Your task to perform on an android device: Open Android settings Image 0: 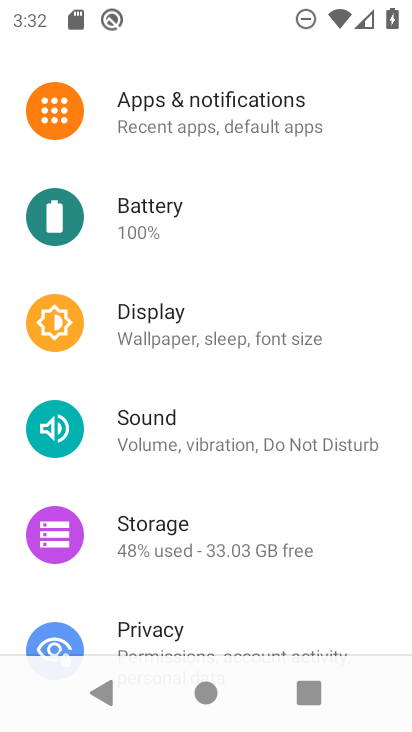
Step 0: press home button
Your task to perform on an android device: Open Android settings Image 1: 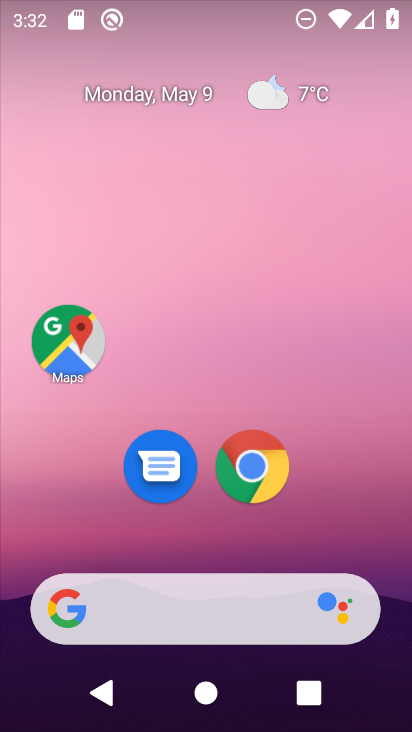
Step 1: drag from (33, 711) to (301, 296)
Your task to perform on an android device: Open Android settings Image 2: 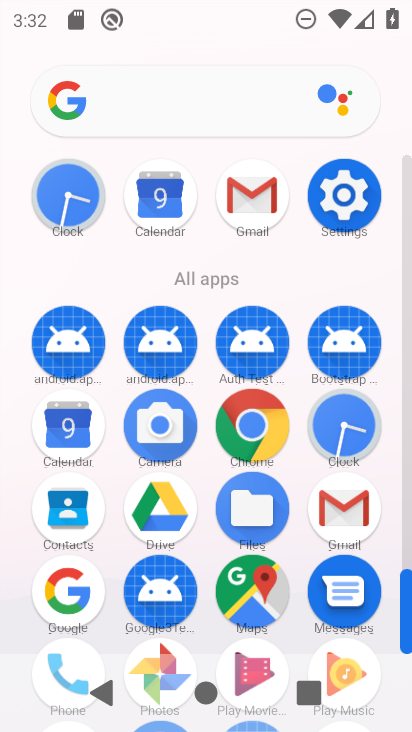
Step 2: click (353, 208)
Your task to perform on an android device: Open Android settings Image 3: 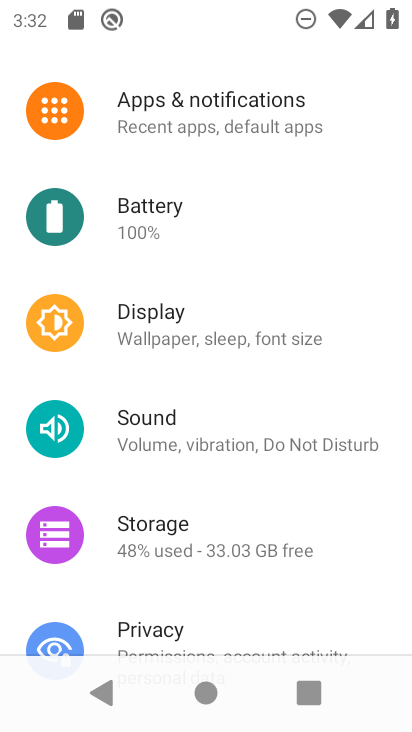
Step 3: drag from (223, 542) to (411, 206)
Your task to perform on an android device: Open Android settings Image 4: 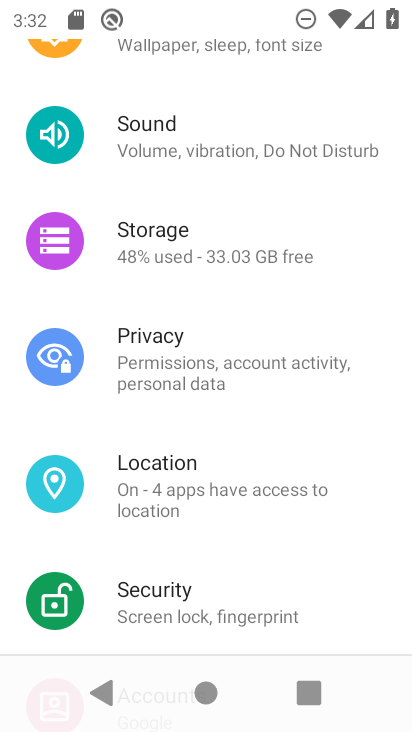
Step 4: drag from (212, 514) to (375, 125)
Your task to perform on an android device: Open Android settings Image 5: 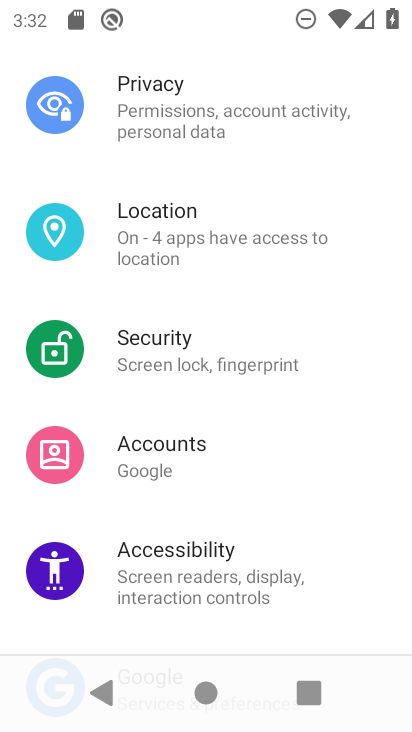
Step 5: drag from (154, 549) to (293, 203)
Your task to perform on an android device: Open Android settings Image 6: 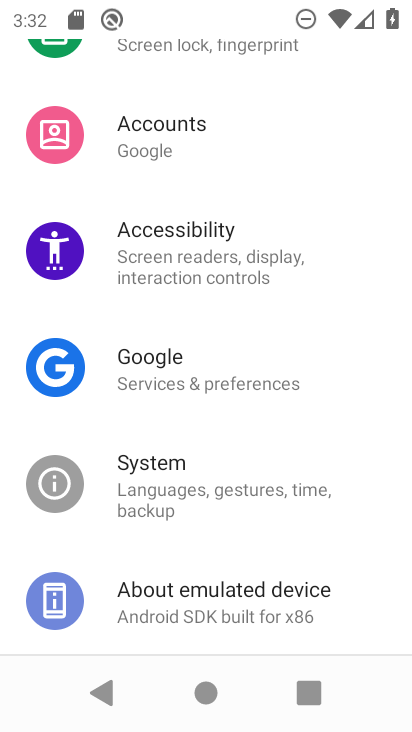
Step 6: drag from (168, 606) to (294, 287)
Your task to perform on an android device: Open Android settings Image 7: 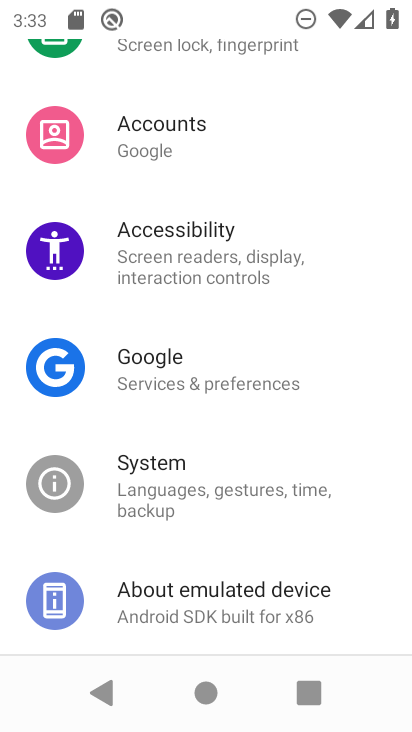
Step 7: click (149, 599)
Your task to perform on an android device: Open Android settings Image 8: 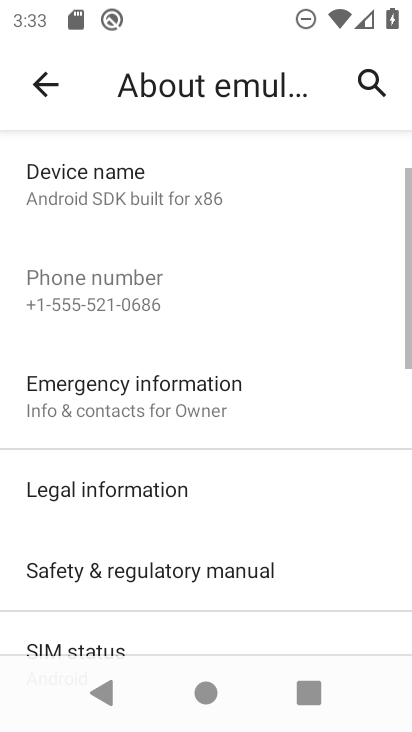
Step 8: task complete